Your task to perform on an android device: Show the shopping cart on amazon.com. Search for "beats solo 3" on amazon.com, select the first entry, and add it to the cart. Image 0: 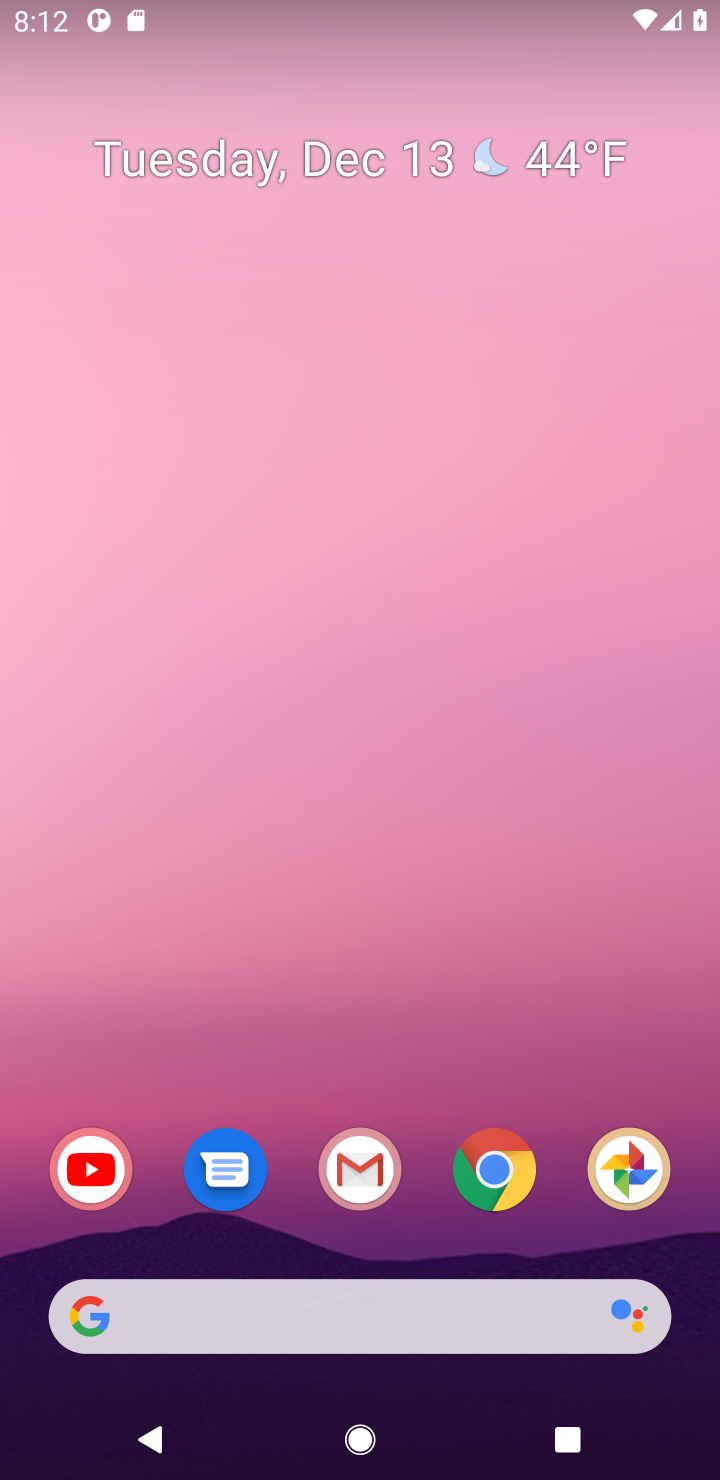
Step 0: click (488, 1191)
Your task to perform on an android device: Show the shopping cart on amazon.com. Search for "beats solo 3" on amazon.com, select the first entry, and add it to the cart. Image 1: 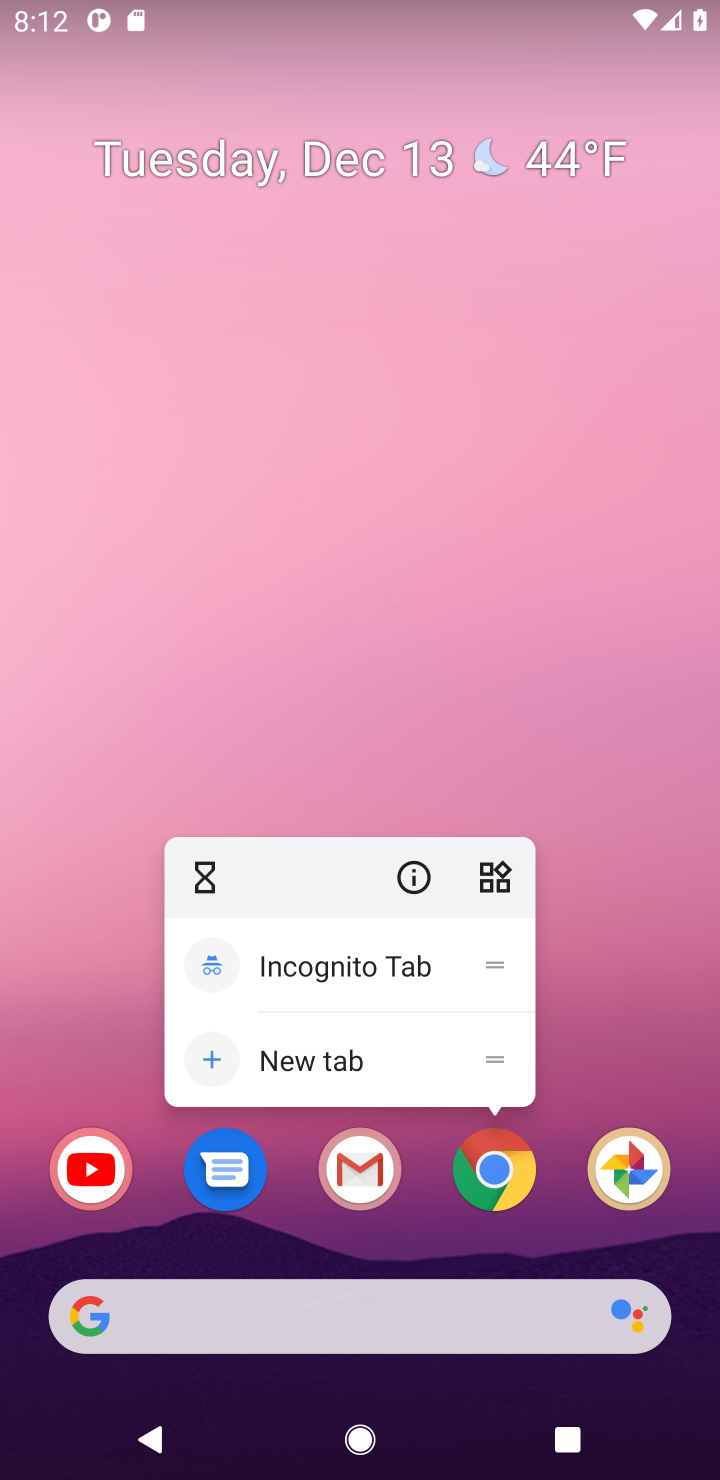
Step 1: click (481, 1172)
Your task to perform on an android device: Show the shopping cart on amazon.com. Search for "beats solo 3" on amazon.com, select the first entry, and add it to the cart. Image 2: 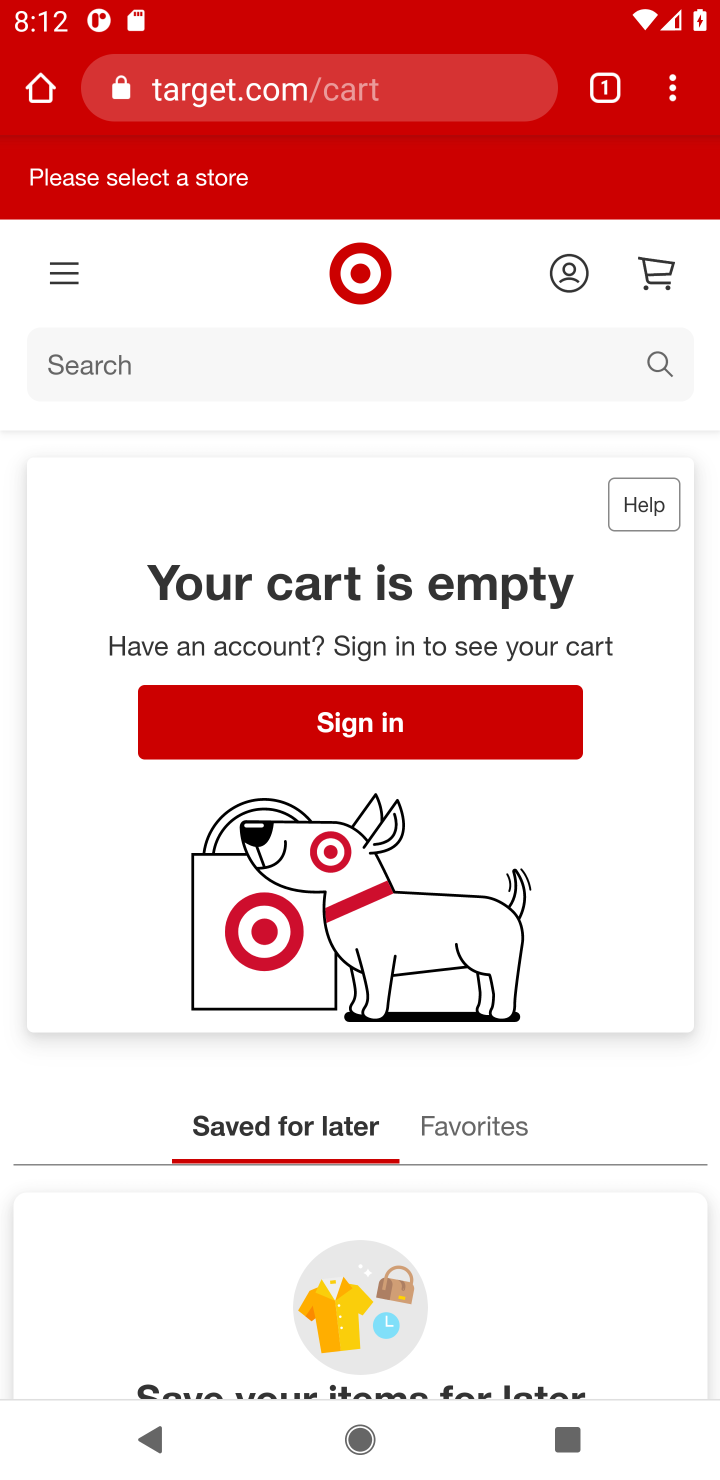
Step 2: click (414, 105)
Your task to perform on an android device: Show the shopping cart on amazon.com. Search for "beats solo 3" on amazon.com, select the first entry, and add it to the cart. Image 3: 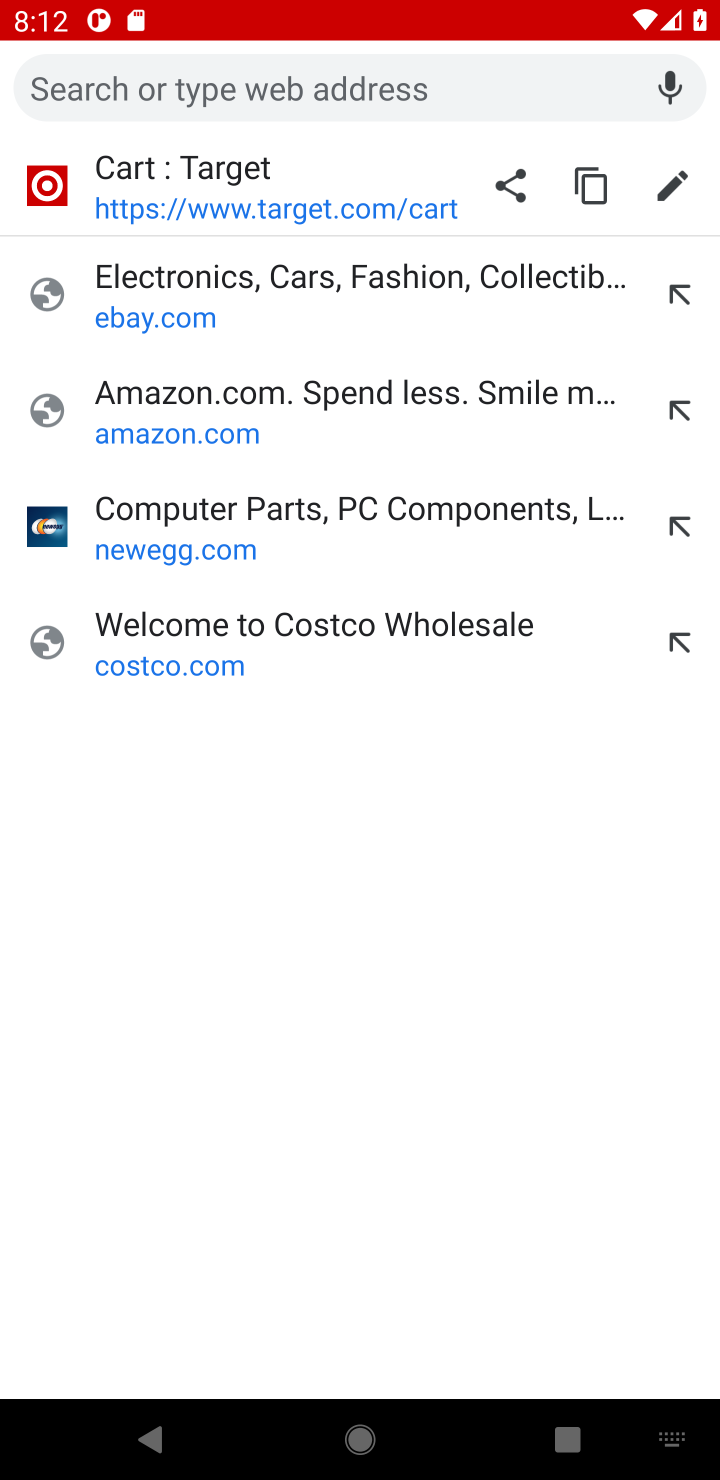
Step 3: type "amazon"
Your task to perform on an android device: Show the shopping cart on amazon.com. Search for "beats solo 3" on amazon.com, select the first entry, and add it to the cart. Image 4: 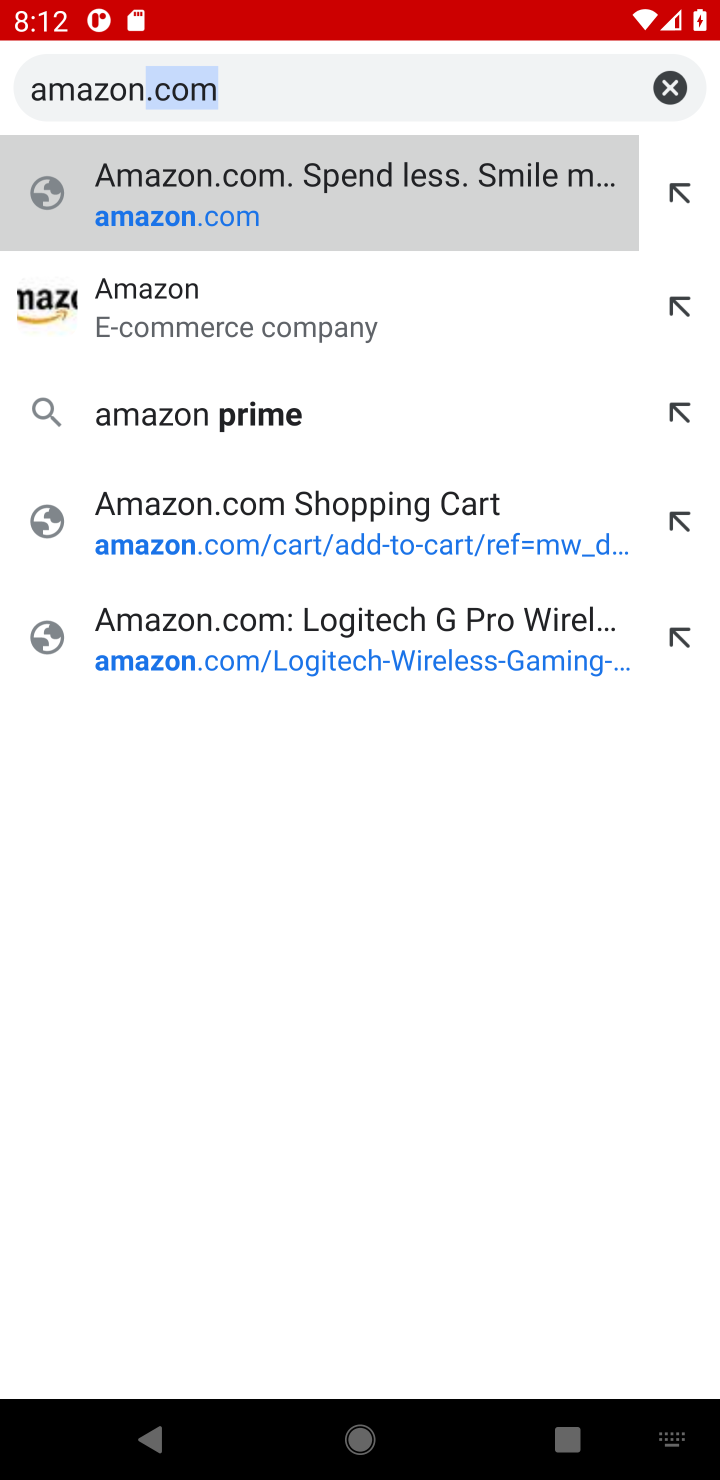
Step 4: click (342, 228)
Your task to perform on an android device: Show the shopping cart on amazon.com. Search for "beats solo 3" on amazon.com, select the first entry, and add it to the cart. Image 5: 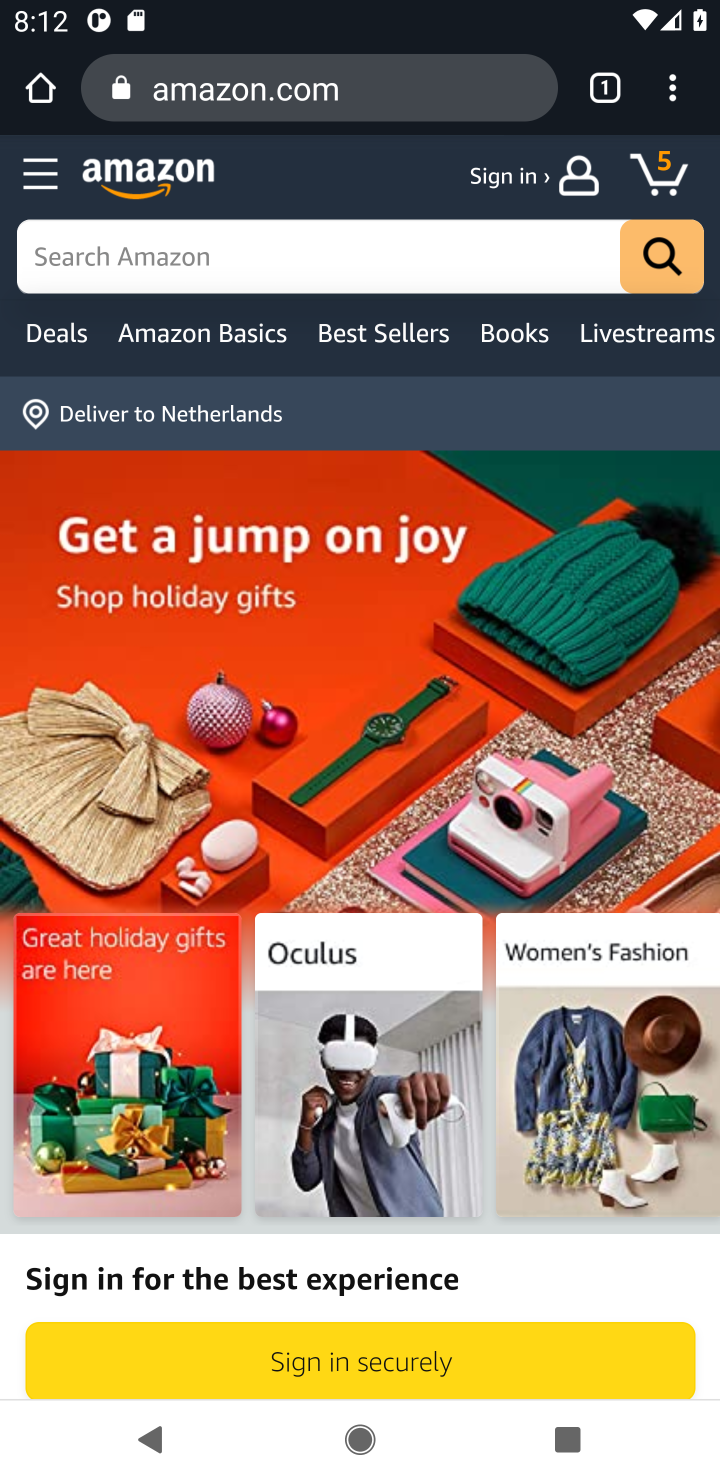
Step 5: click (198, 232)
Your task to perform on an android device: Show the shopping cart on amazon.com. Search for "beats solo 3" on amazon.com, select the first entry, and add it to the cart. Image 6: 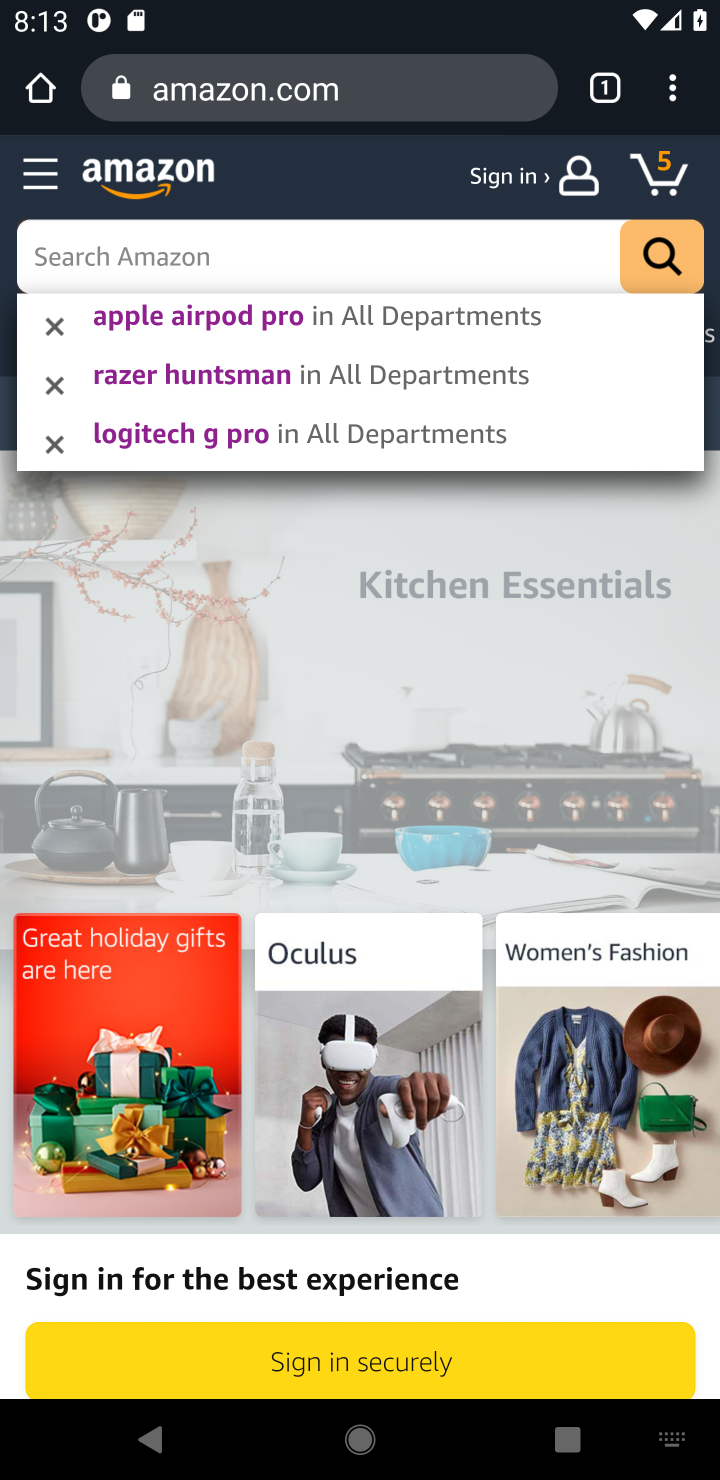
Step 6: type "beats solo 3"
Your task to perform on an android device: Show the shopping cart on amazon.com. Search for "beats solo 3" on amazon.com, select the first entry, and add it to the cart. Image 7: 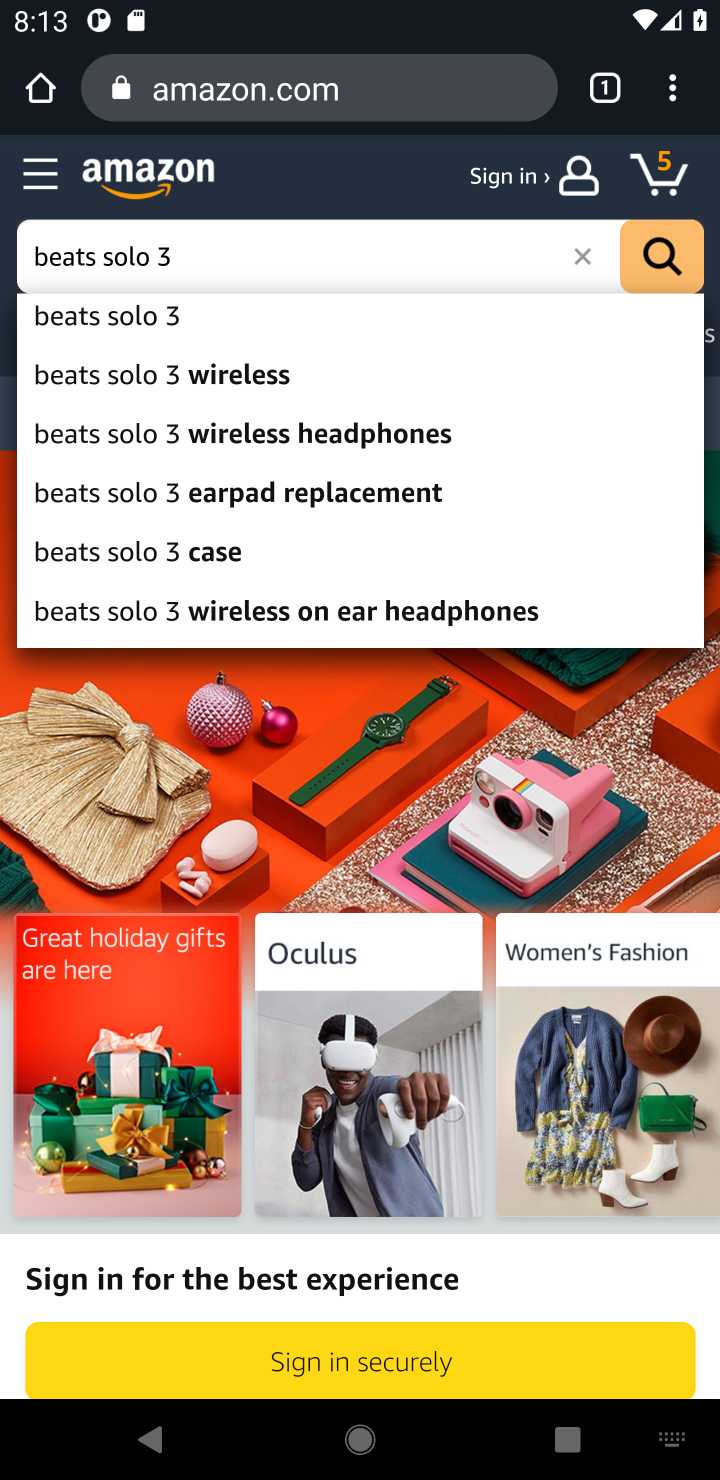
Step 7: click (645, 279)
Your task to perform on an android device: Show the shopping cart on amazon.com. Search for "beats solo 3" on amazon.com, select the first entry, and add it to the cart. Image 8: 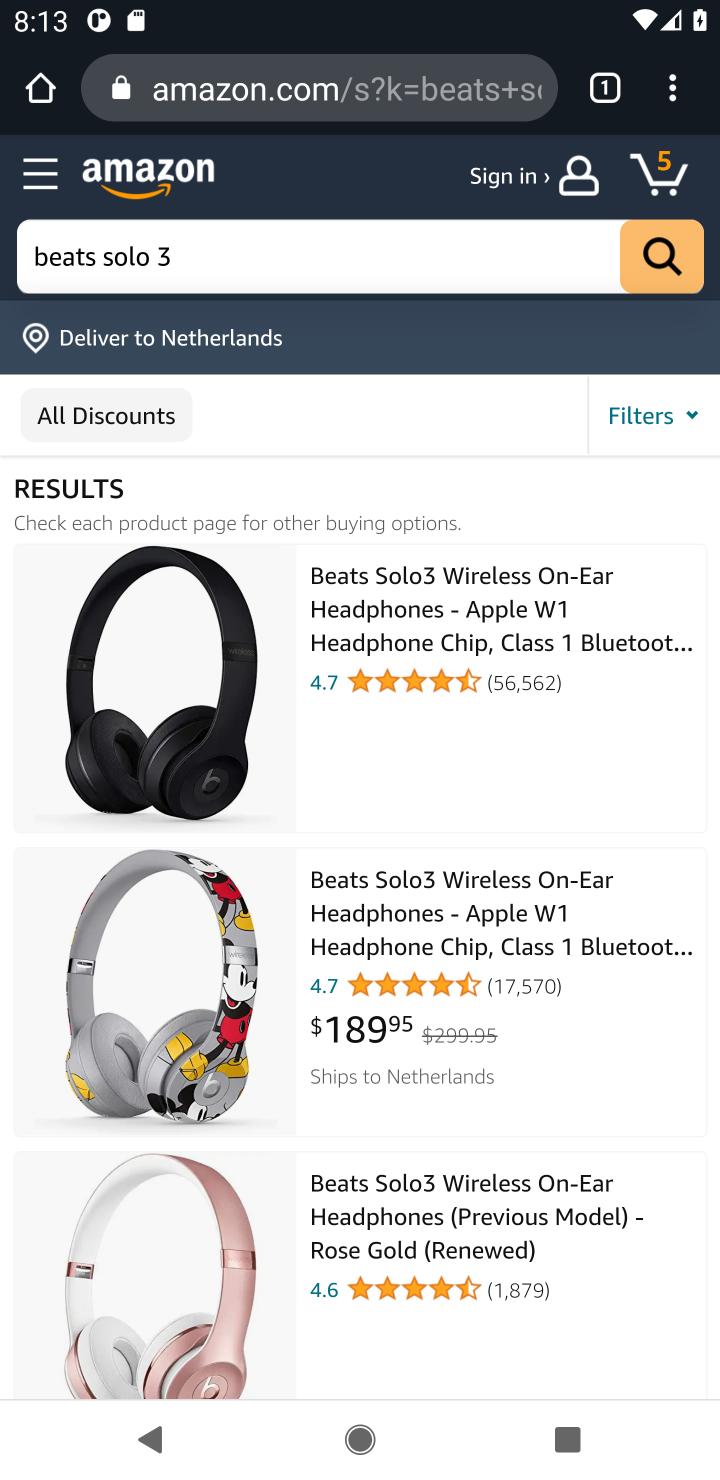
Step 8: click (478, 670)
Your task to perform on an android device: Show the shopping cart on amazon.com. Search for "beats solo 3" on amazon.com, select the first entry, and add it to the cart. Image 9: 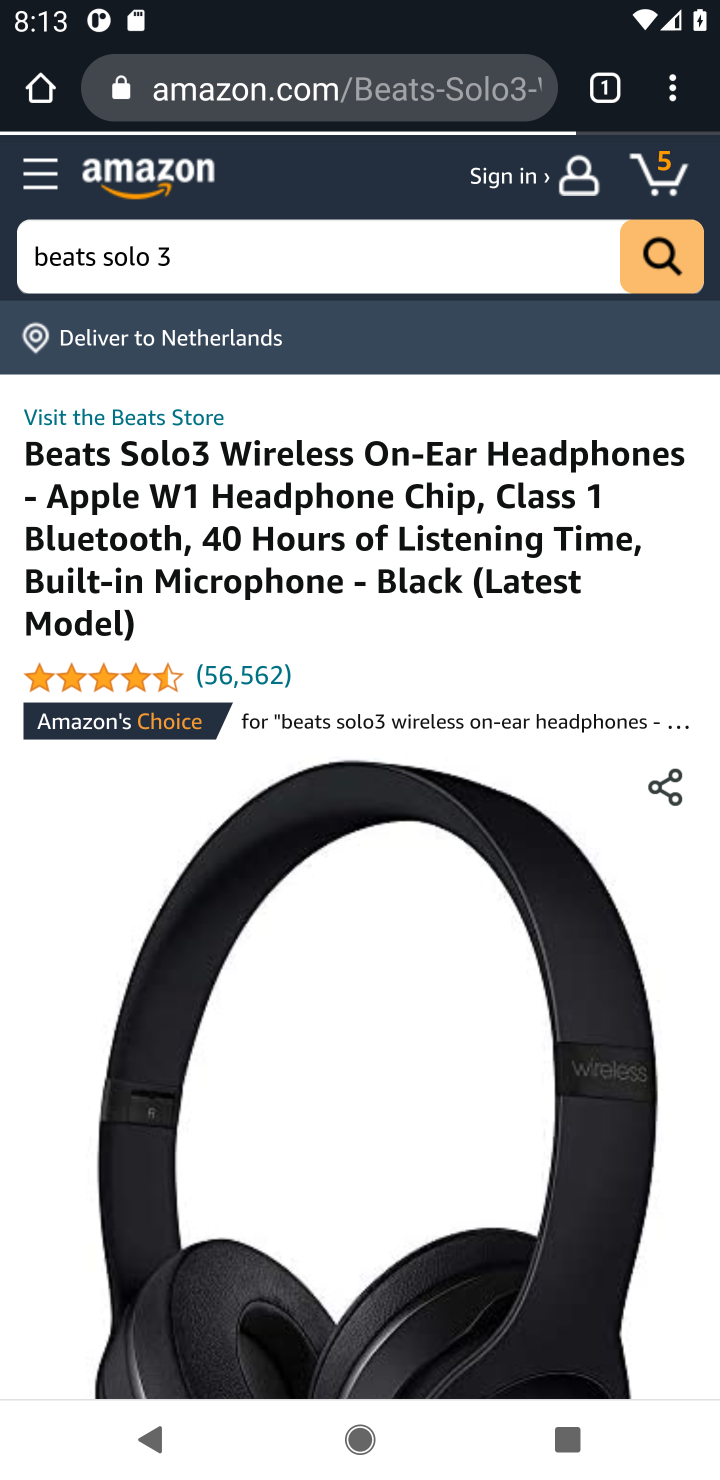
Step 9: drag from (383, 1035) to (370, 417)
Your task to perform on an android device: Show the shopping cart on amazon.com. Search for "beats solo 3" on amazon.com, select the first entry, and add it to the cart. Image 10: 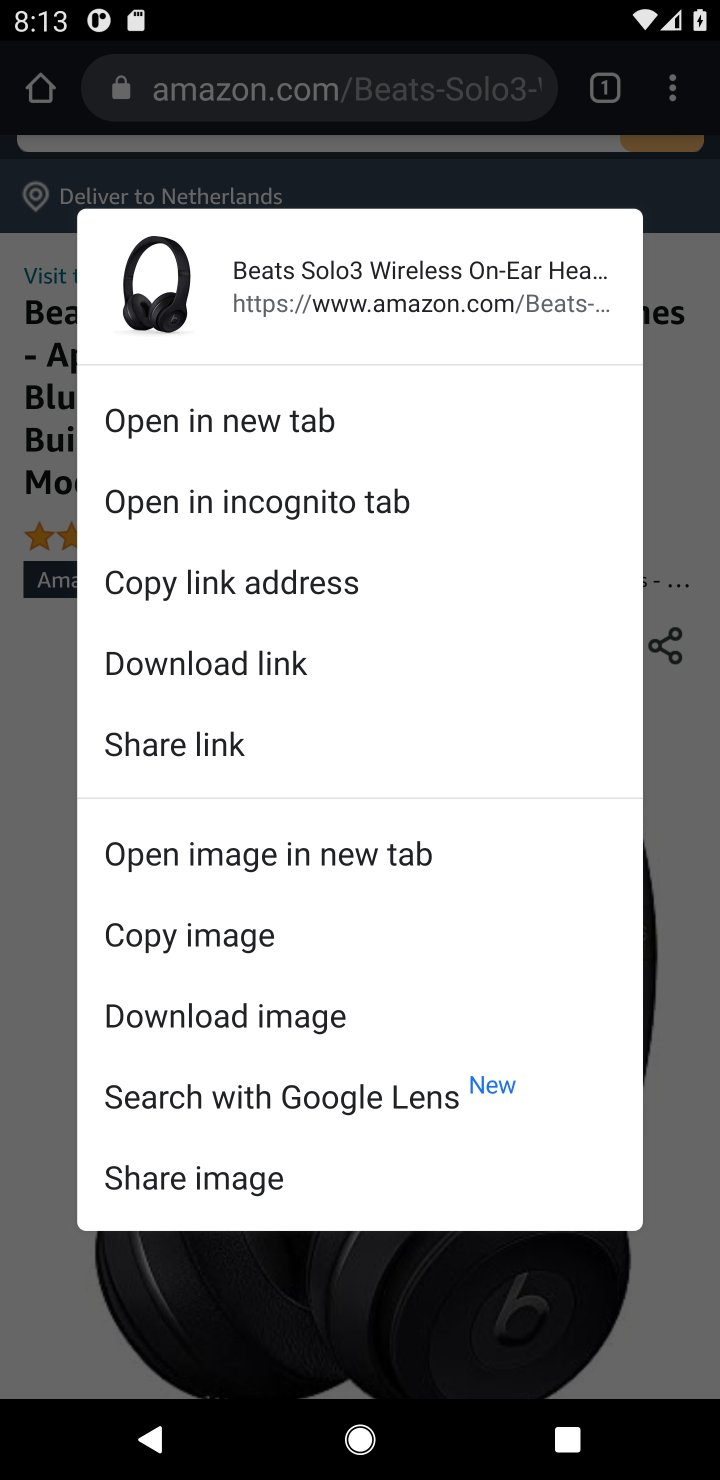
Step 10: click (470, 1308)
Your task to perform on an android device: Show the shopping cart on amazon.com. Search for "beats solo 3" on amazon.com, select the first entry, and add it to the cart. Image 11: 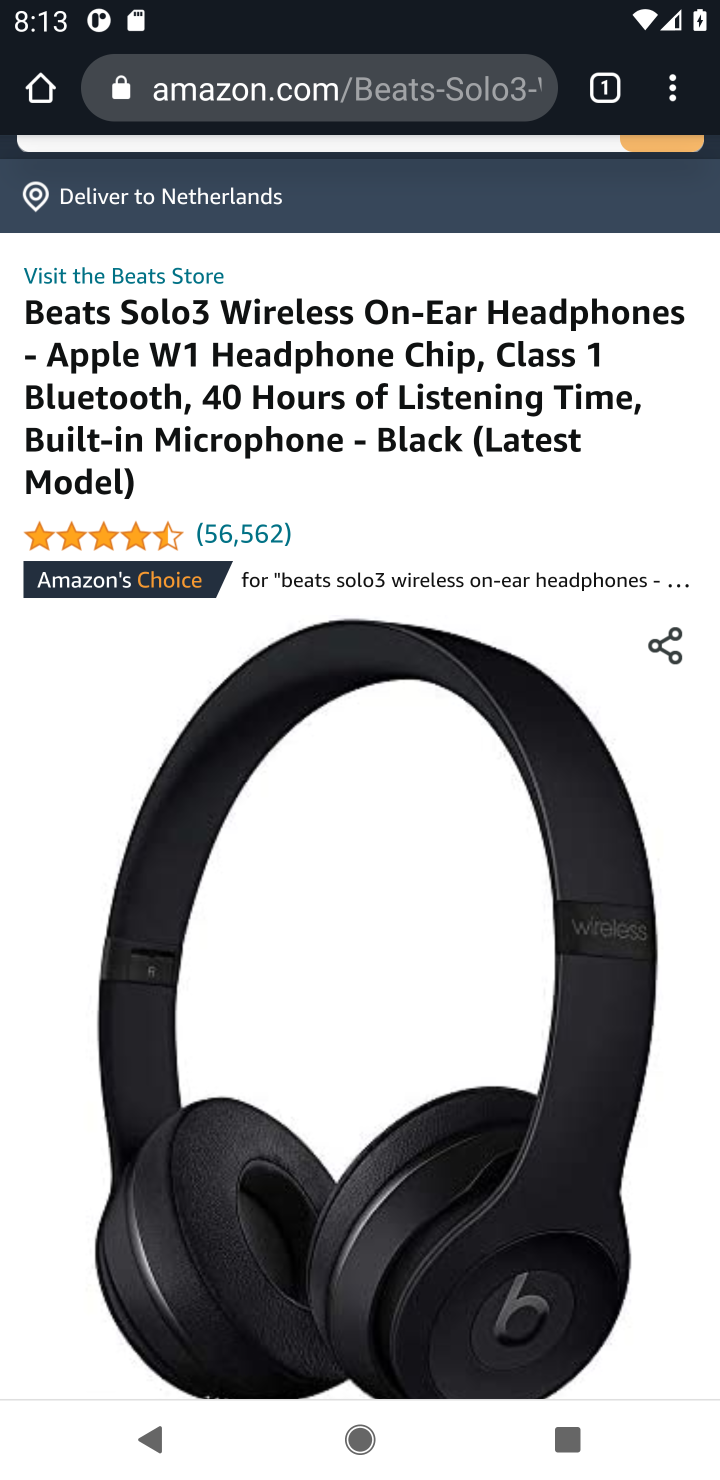
Step 11: task complete